Your task to perform on an android device: Search for the new lego star wars 2021 on Target Image 0: 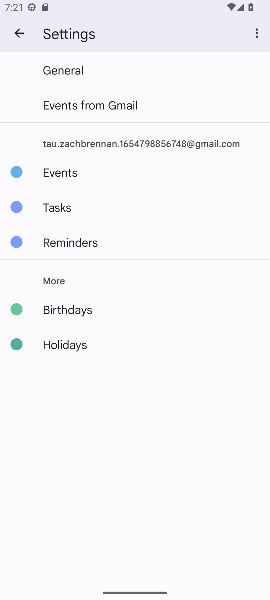
Step 0: press home button
Your task to perform on an android device: Search for the new lego star wars 2021 on Target Image 1: 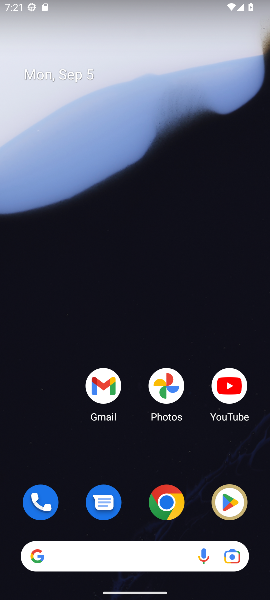
Step 1: drag from (196, 478) to (110, 7)
Your task to perform on an android device: Search for the new lego star wars 2021 on Target Image 2: 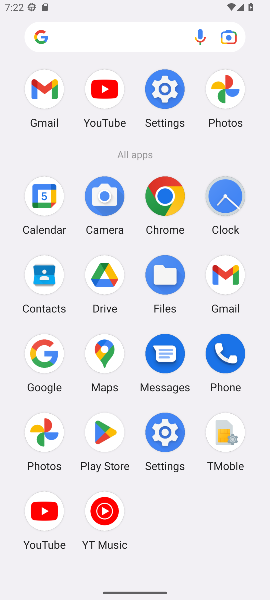
Step 2: click (39, 362)
Your task to perform on an android device: Search for the new lego star wars 2021 on Target Image 3: 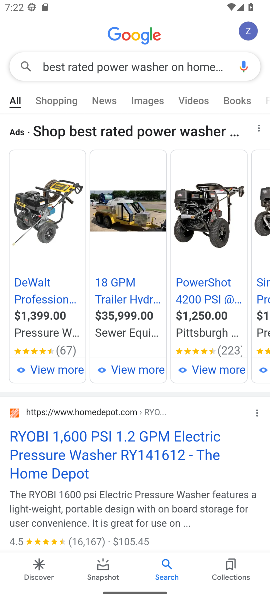
Step 3: press back button
Your task to perform on an android device: Search for the new lego star wars 2021 on Target Image 4: 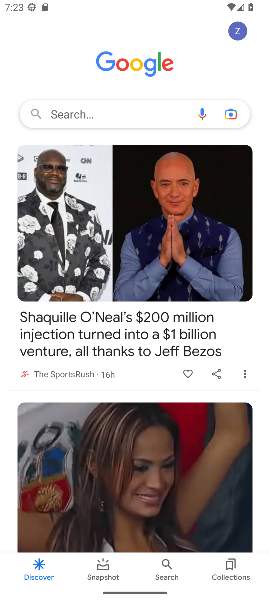
Step 4: click (62, 110)
Your task to perform on an android device: Search for the new lego star wars 2021 on Target Image 5: 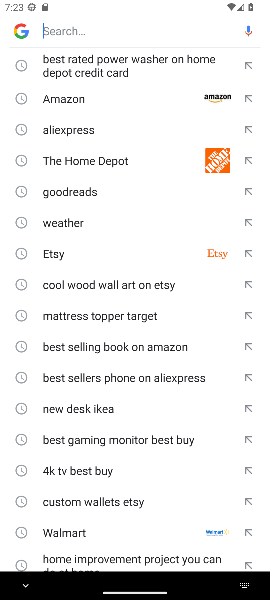
Step 5: type "new lego star wars 2021 on Target"
Your task to perform on an android device: Search for the new lego star wars 2021 on Target Image 6: 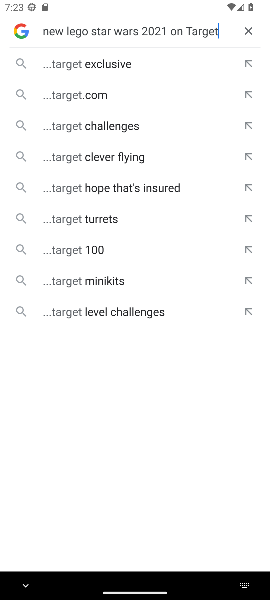
Step 6: click (81, 91)
Your task to perform on an android device: Search for the new lego star wars 2021 on Target Image 7: 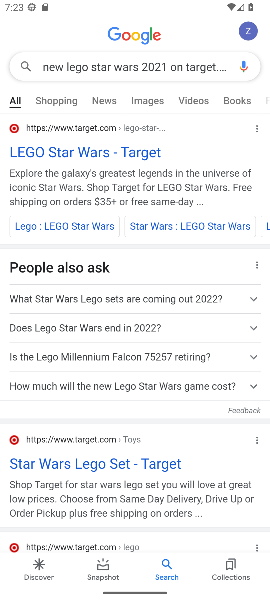
Step 7: task complete